Your task to perform on an android device: Go to Google Image 0: 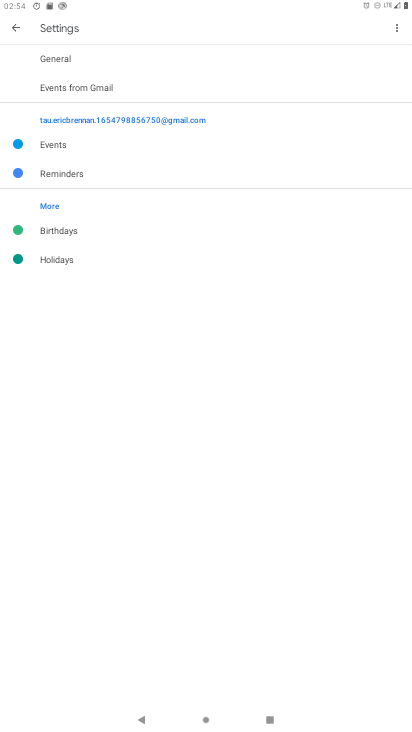
Step 0: press home button
Your task to perform on an android device: Go to Google Image 1: 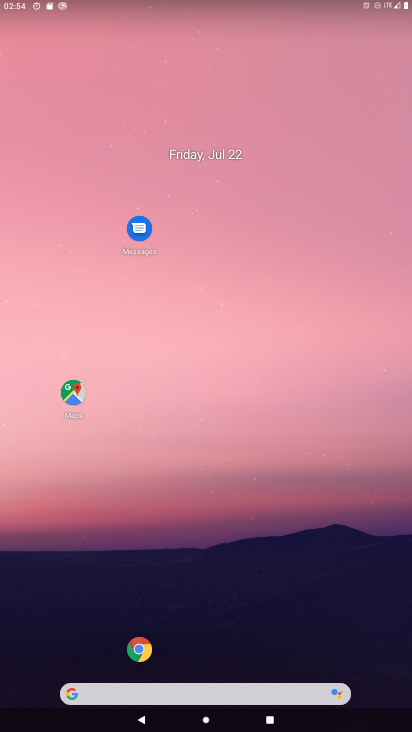
Step 1: click (129, 643)
Your task to perform on an android device: Go to Google Image 2: 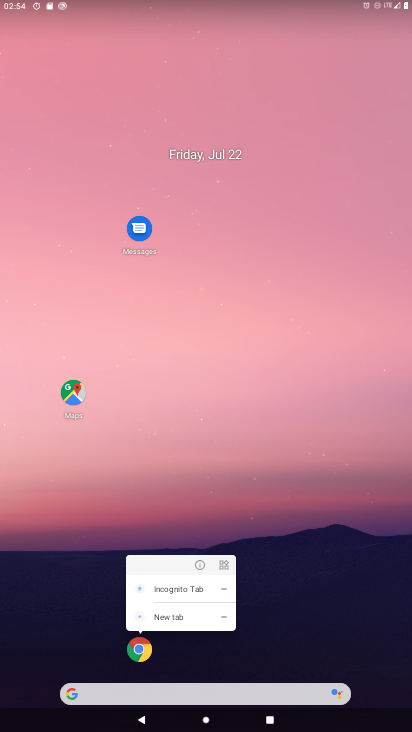
Step 2: click (94, 693)
Your task to perform on an android device: Go to Google Image 3: 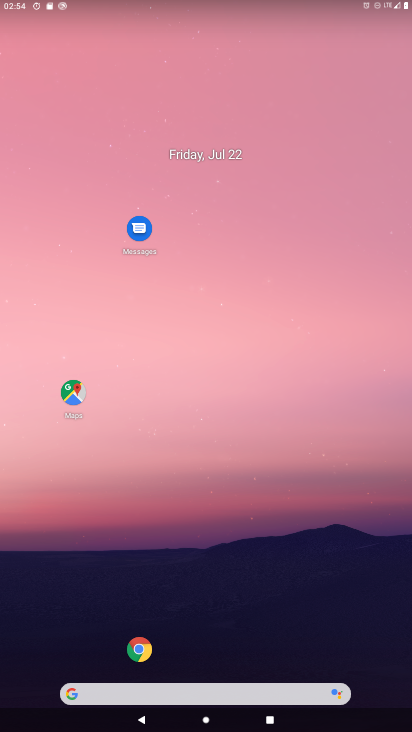
Step 3: click (88, 700)
Your task to perform on an android device: Go to Google Image 4: 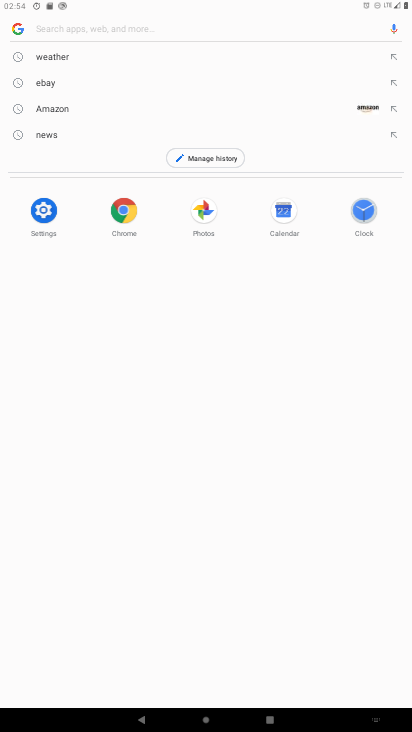
Step 4: task complete